Your task to perform on an android device: Clear the cart on costco. Search for "alienware aurora" on costco, select the first entry, add it to the cart, then select checkout. Image 0: 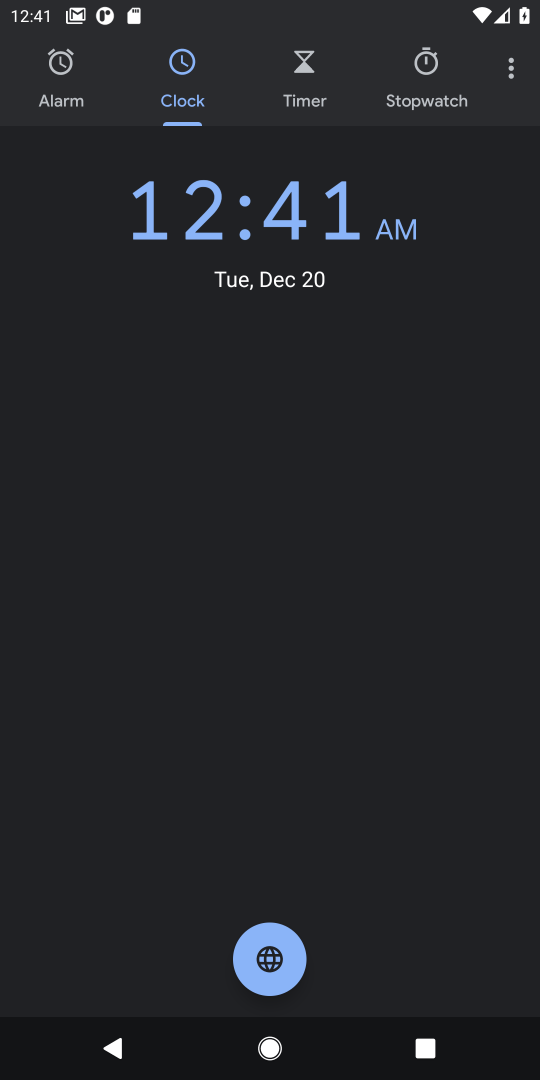
Step 0: press home button
Your task to perform on an android device: Clear the cart on costco. Search for "alienware aurora" on costco, select the first entry, add it to the cart, then select checkout. Image 1: 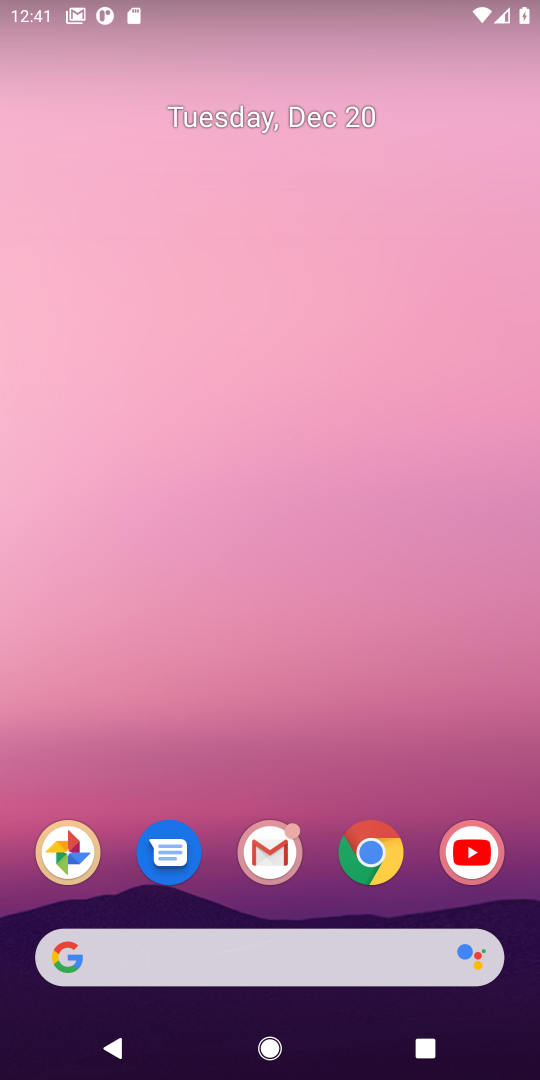
Step 1: click (381, 866)
Your task to perform on an android device: Clear the cart on costco. Search for "alienware aurora" on costco, select the first entry, add it to the cart, then select checkout. Image 2: 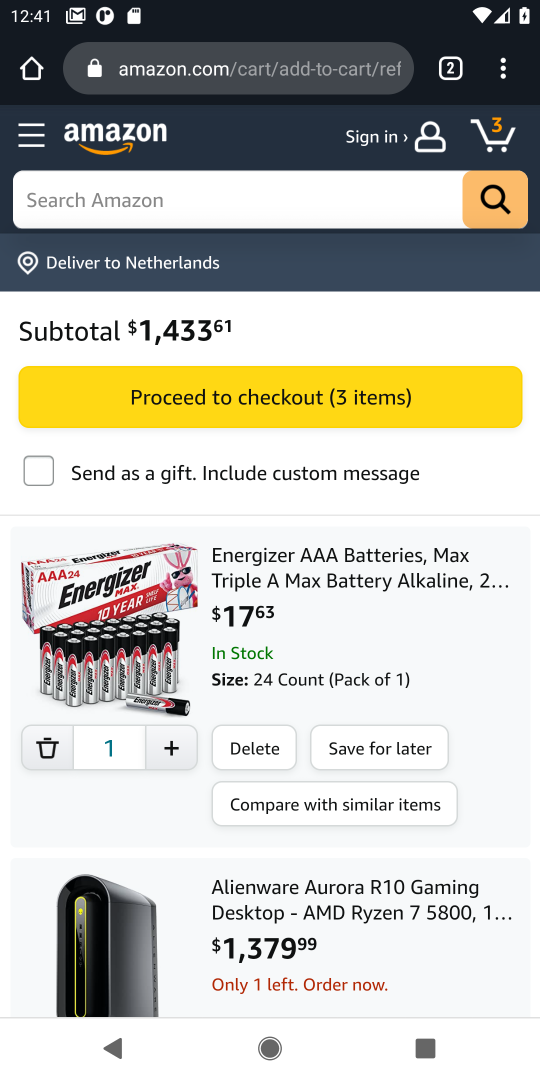
Step 2: click (224, 79)
Your task to perform on an android device: Clear the cart on costco. Search for "alienware aurora" on costco, select the first entry, add it to the cart, then select checkout. Image 3: 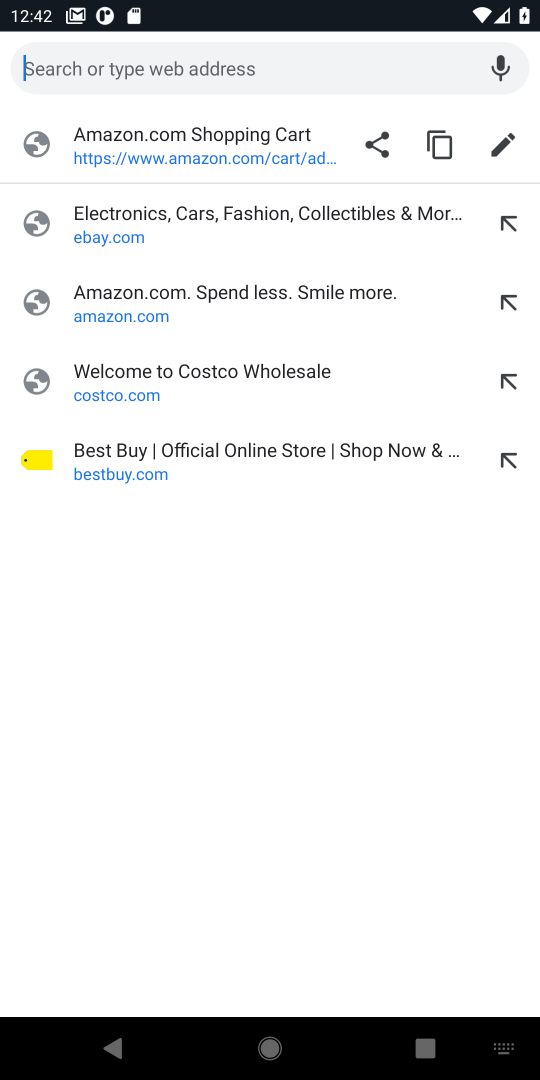
Step 3: click (104, 384)
Your task to perform on an android device: Clear the cart on costco. Search for "alienware aurora" on costco, select the first entry, add it to the cart, then select checkout. Image 4: 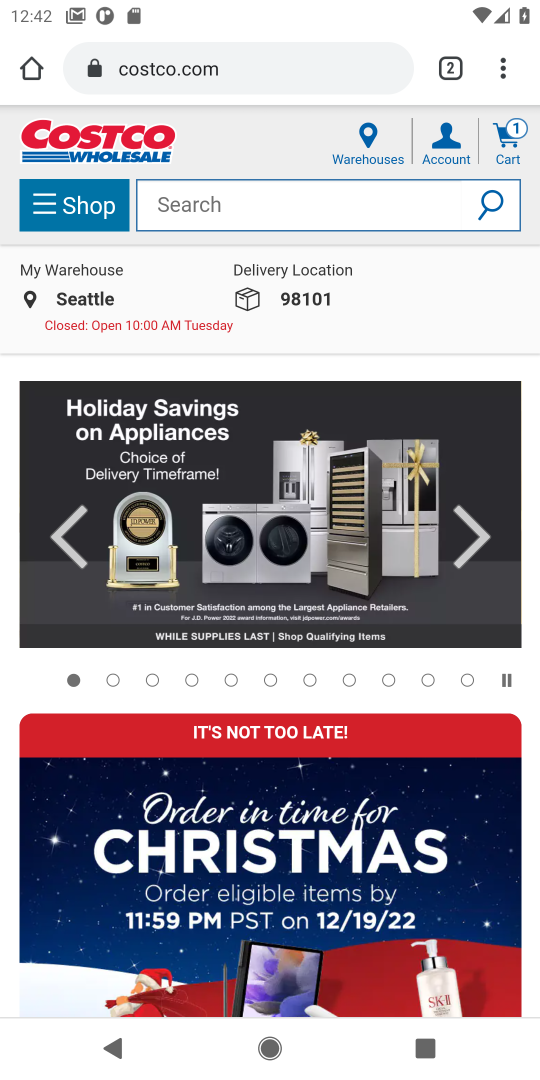
Step 4: click (510, 144)
Your task to perform on an android device: Clear the cart on costco. Search for "alienware aurora" on costco, select the first entry, add it to the cart, then select checkout. Image 5: 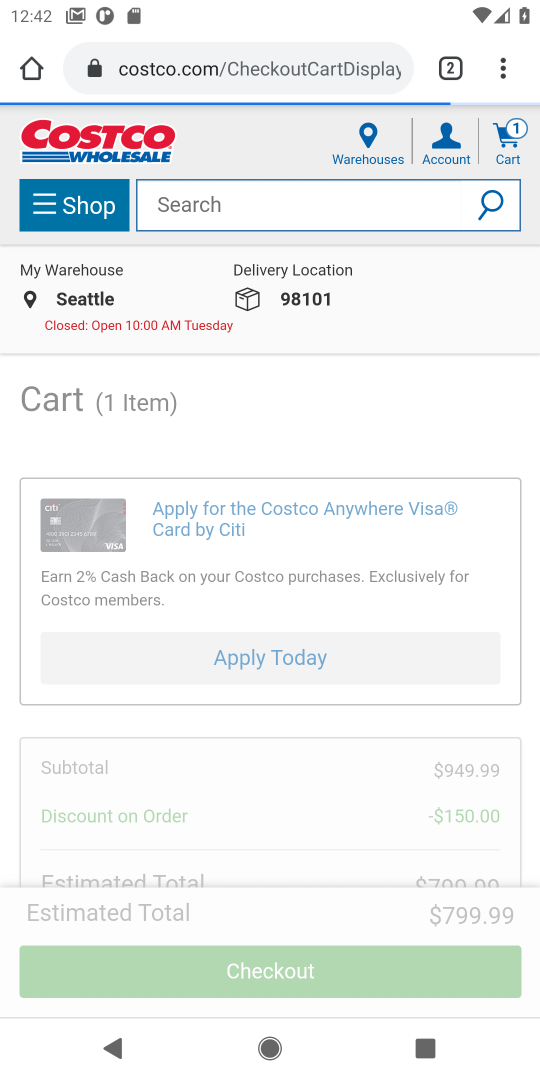
Step 5: drag from (218, 682) to (227, 299)
Your task to perform on an android device: Clear the cart on costco. Search for "alienware aurora" on costco, select the first entry, add it to the cart, then select checkout. Image 6: 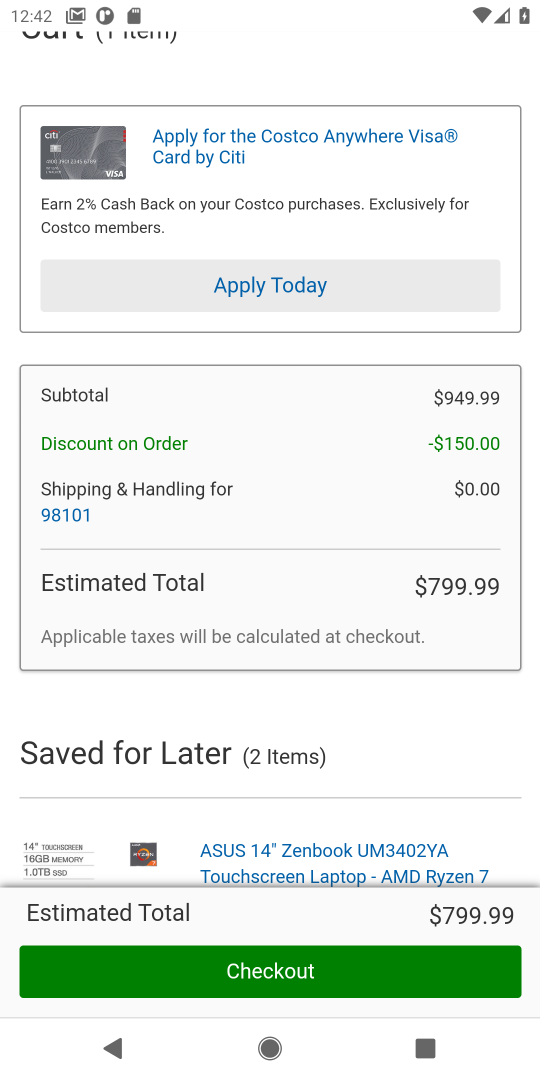
Step 6: drag from (258, 631) to (267, 306)
Your task to perform on an android device: Clear the cart on costco. Search for "alienware aurora" on costco, select the first entry, add it to the cart, then select checkout. Image 7: 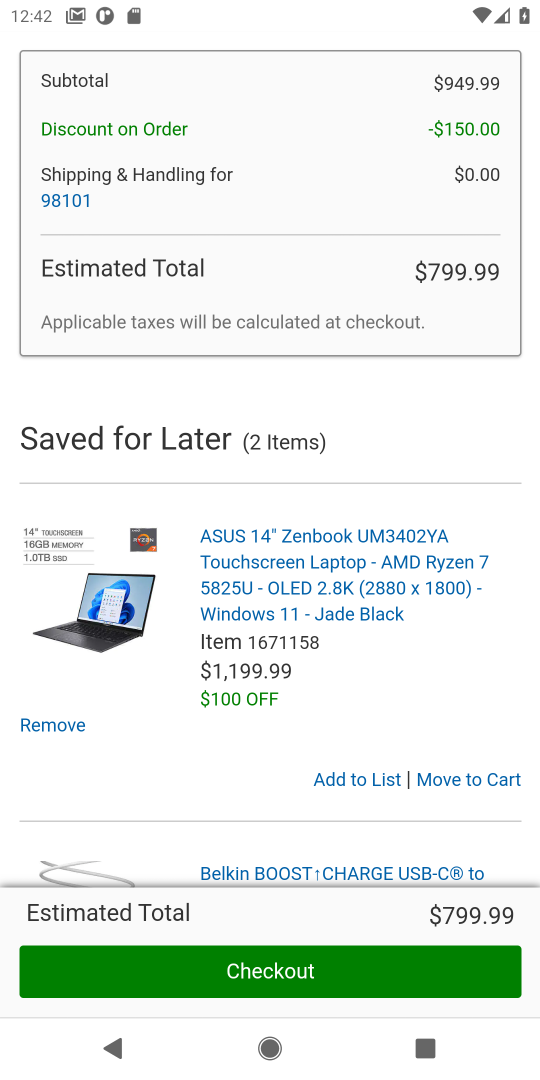
Step 7: drag from (247, 529) to (215, 829)
Your task to perform on an android device: Clear the cart on costco. Search for "alienware aurora" on costco, select the first entry, add it to the cart, then select checkout. Image 8: 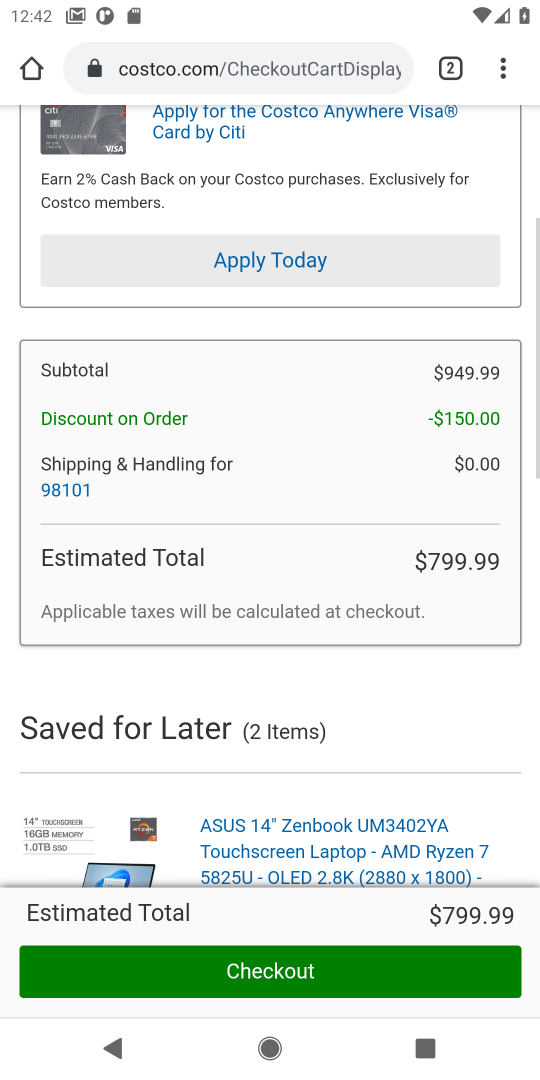
Step 8: drag from (216, 375) to (207, 823)
Your task to perform on an android device: Clear the cart on costco. Search for "alienware aurora" on costco, select the first entry, add it to the cart, then select checkout. Image 9: 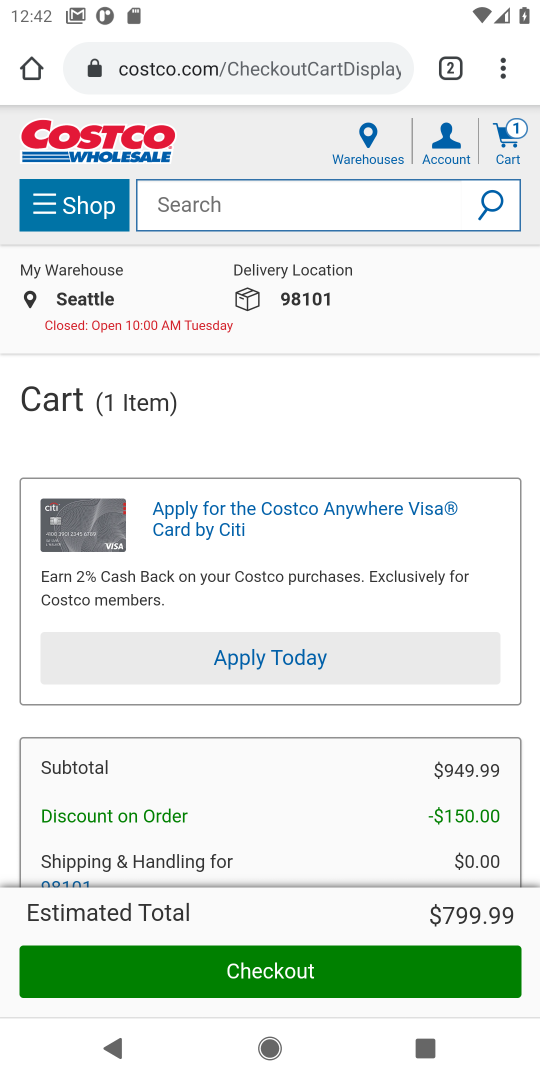
Step 9: drag from (196, 747) to (206, 138)
Your task to perform on an android device: Clear the cart on costco. Search for "alienware aurora" on costco, select the first entry, add it to the cart, then select checkout. Image 10: 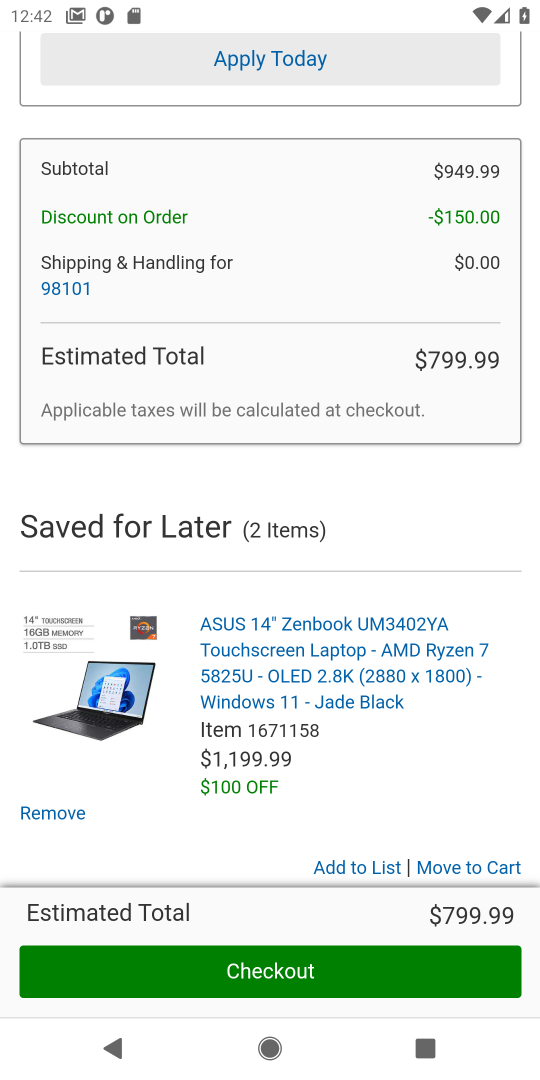
Step 10: click (71, 816)
Your task to perform on an android device: Clear the cart on costco. Search for "alienware aurora" on costco, select the first entry, add it to the cart, then select checkout. Image 11: 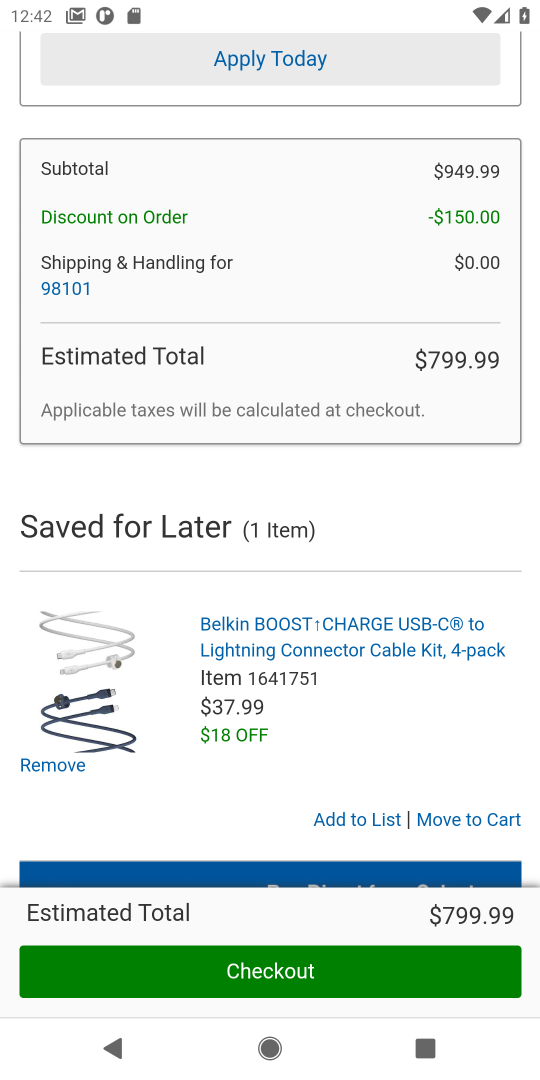
Step 11: click (60, 765)
Your task to perform on an android device: Clear the cart on costco. Search for "alienware aurora" on costco, select the first entry, add it to the cart, then select checkout. Image 12: 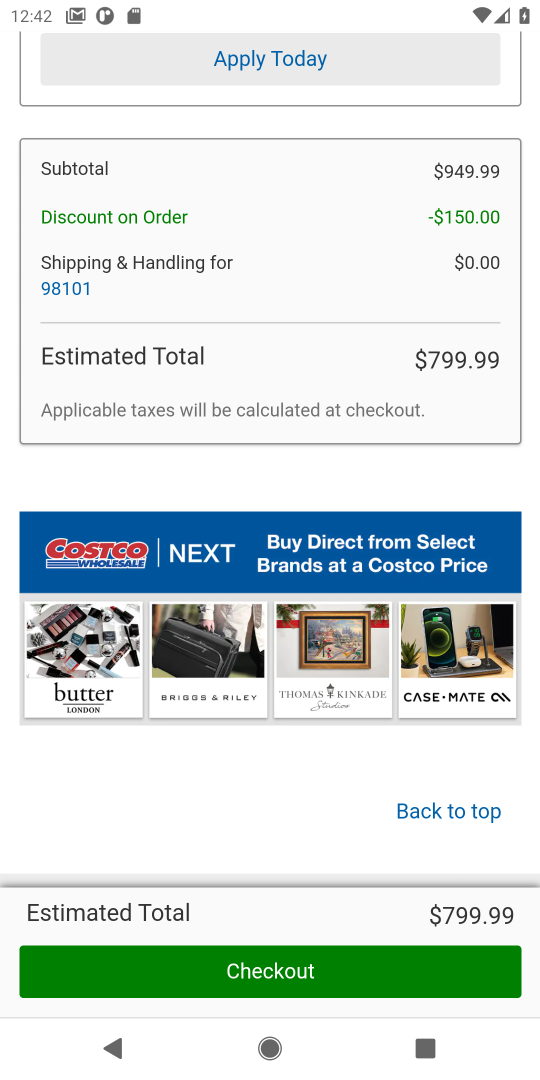
Step 12: drag from (253, 431) to (238, 733)
Your task to perform on an android device: Clear the cart on costco. Search for "alienware aurora" on costco, select the first entry, add it to the cart, then select checkout. Image 13: 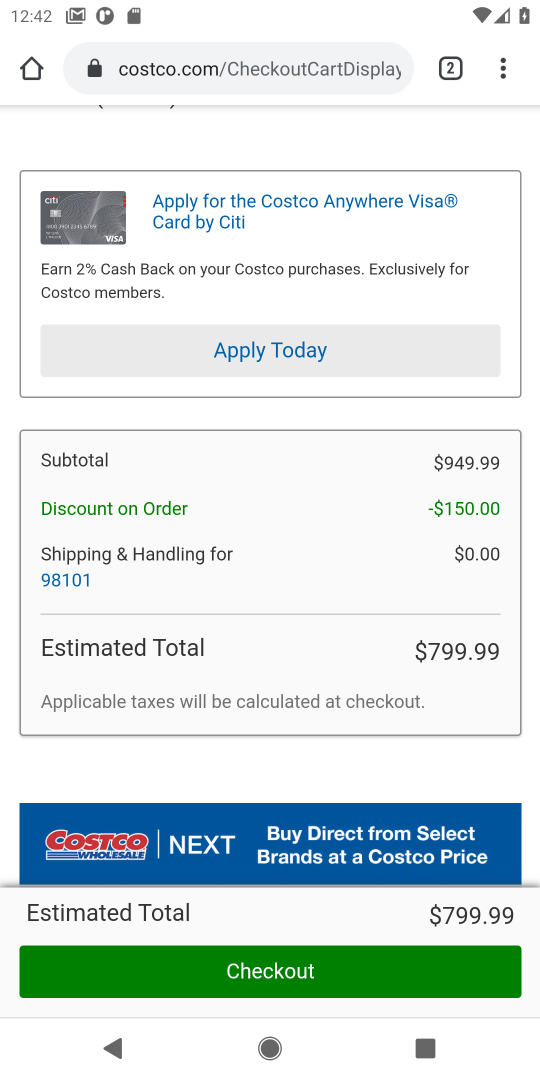
Step 13: drag from (254, 423) to (229, 703)
Your task to perform on an android device: Clear the cart on costco. Search for "alienware aurora" on costco, select the first entry, add it to the cart, then select checkout. Image 14: 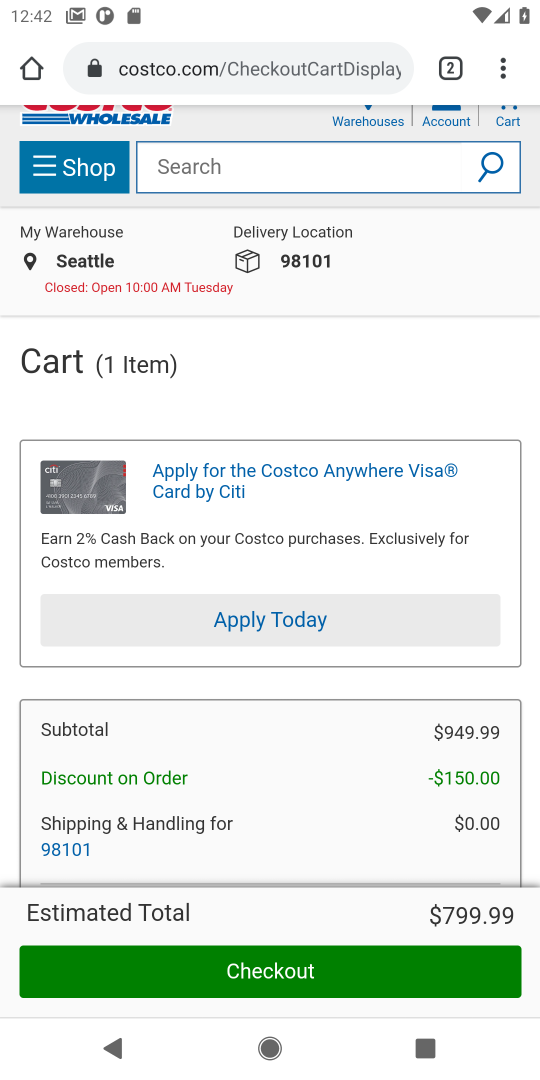
Step 14: drag from (267, 504) to (254, 626)
Your task to perform on an android device: Clear the cart on costco. Search for "alienware aurora" on costco, select the first entry, add it to the cart, then select checkout. Image 15: 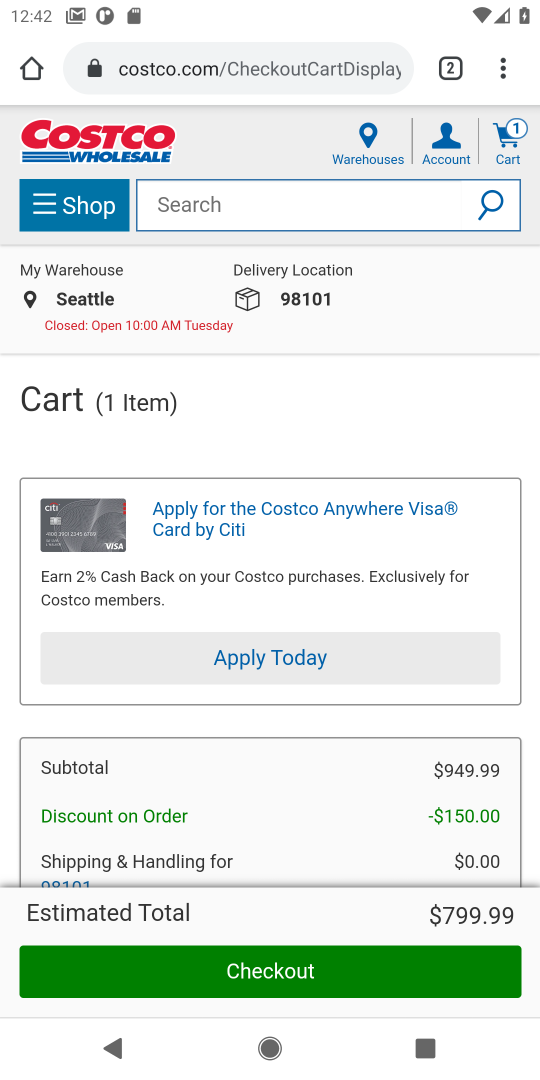
Step 15: drag from (265, 581) to (276, 807)
Your task to perform on an android device: Clear the cart on costco. Search for "alienware aurora" on costco, select the first entry, add it to the cart, then select checkout. Image 16: 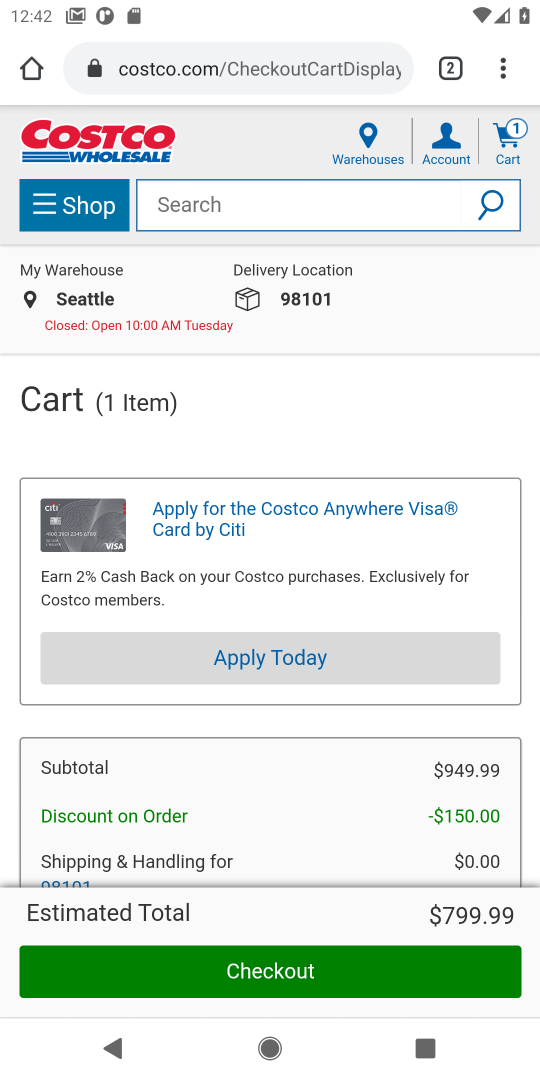
Step 16: click (510, 143)
Your task to perform on an android device: Clear the cart on costco. Search for "alienware aurora" on costco, select the first entry, add it to the cart, then select checkout. Image 17: 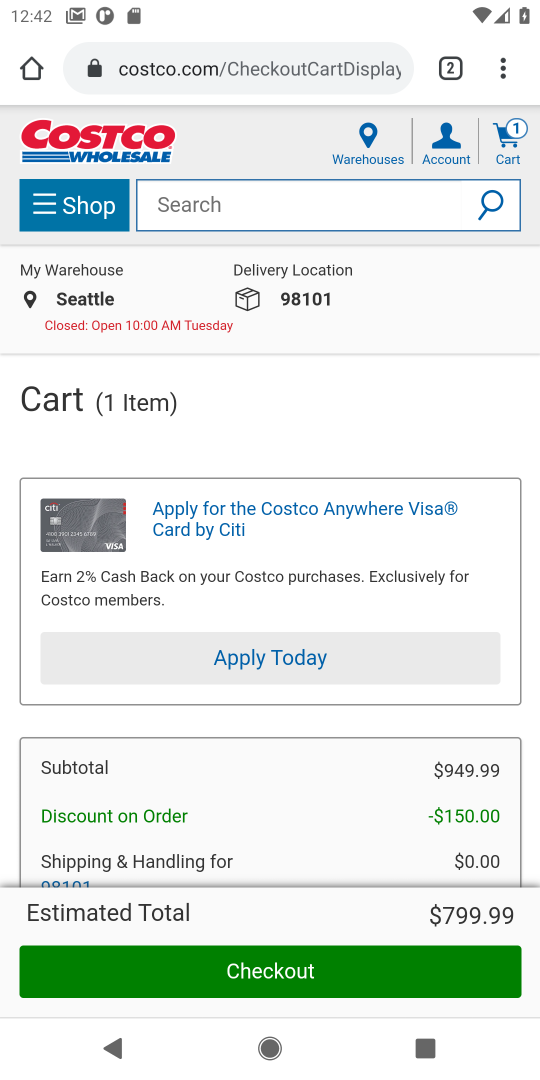
Step 17: task complete